Your task to perform on an android device: Go to battery settings Image 0: 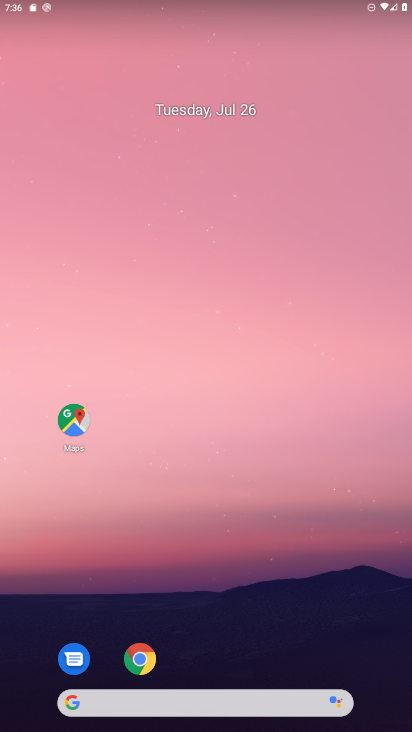
Step 0: press home button
Your task to perform on an android device: Go to battery settings Image 1: 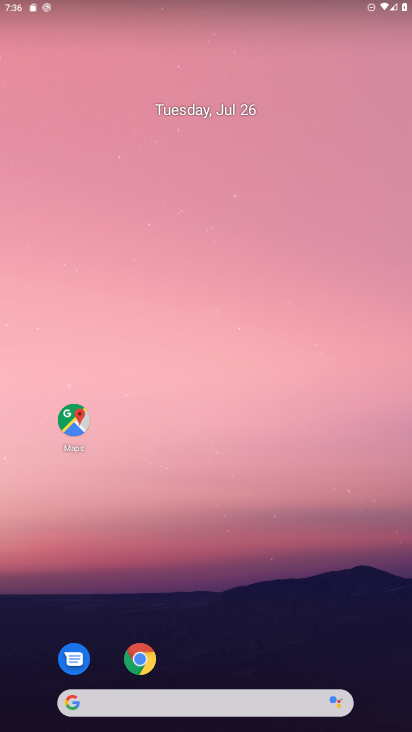
Step 1: drag from (256, 120) to (277, 178)
Your task to perform on an android device: Go to battery settings Image 2: 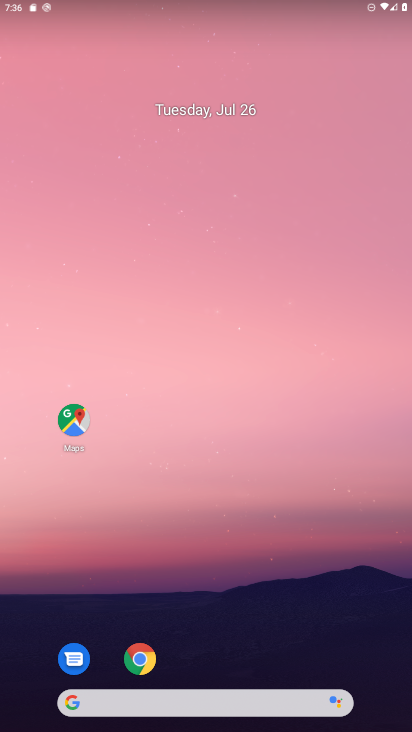
Step 2: drag from (201, 673) to (346, 0)
Your task to perform on an android device: Go to battery settings Image 3: 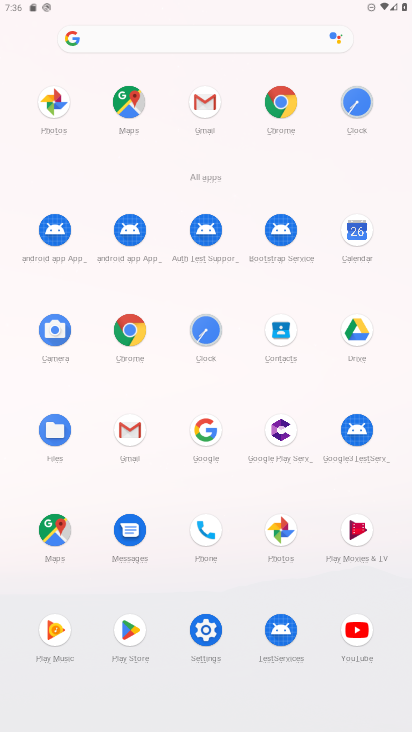
Step 3: click (211, 636)
Your task to perform on an android device: Go to battery settings Image 4: 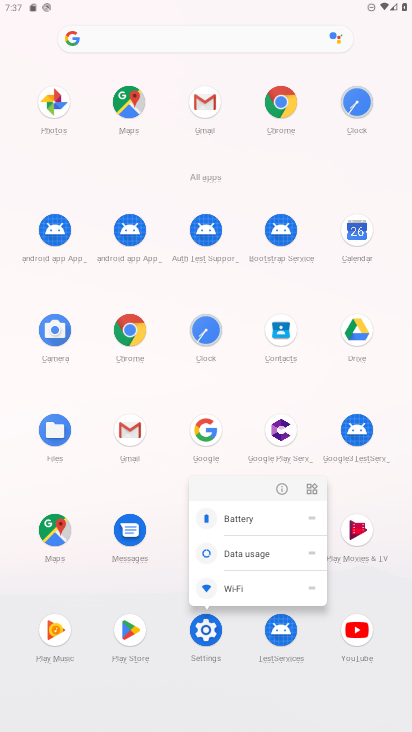
Step 4: click (277, 483)
Your task to perform on an android device: Go to battery settings Image 5: 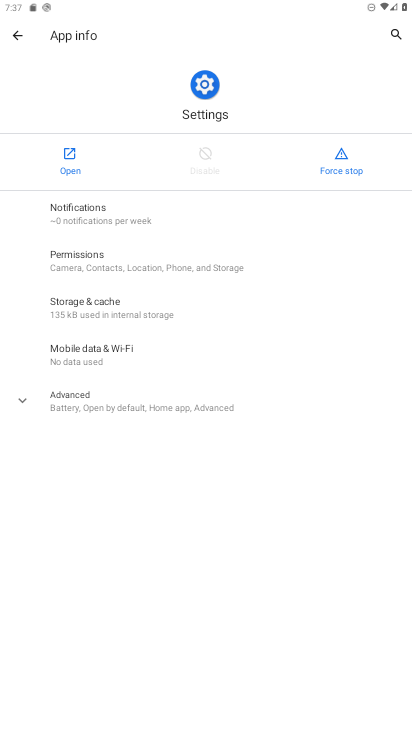
Step 5: click (68, 150)
Your task to perform on an android device: Go to battery settings Image 6: 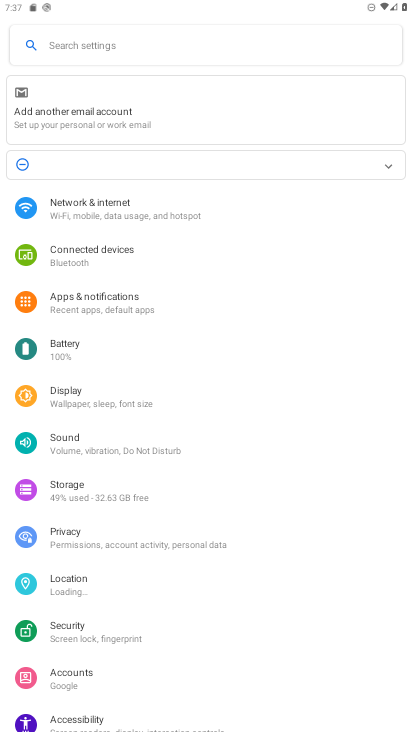
Step 6: click (65, 343)
Your task to perform on an android device: Go to battery settings Image 7: 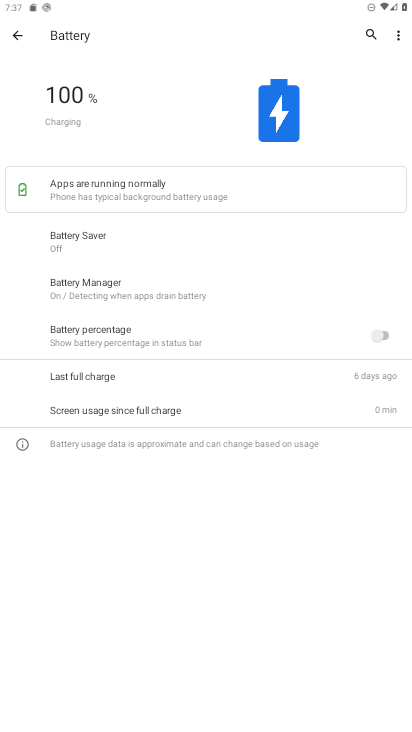
Step 7: task complete